Your task to perform on an android device: change your default location settings in chrome Image 0: 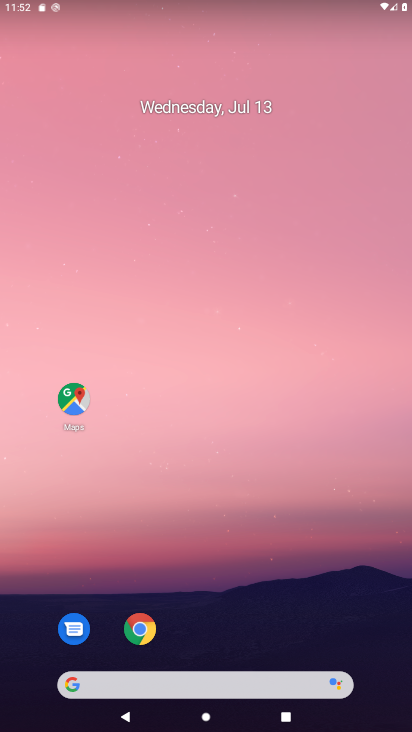
Step 0: click (137, 620)
Your task to perform on an android device: change your default location settings in chrome Image 1: 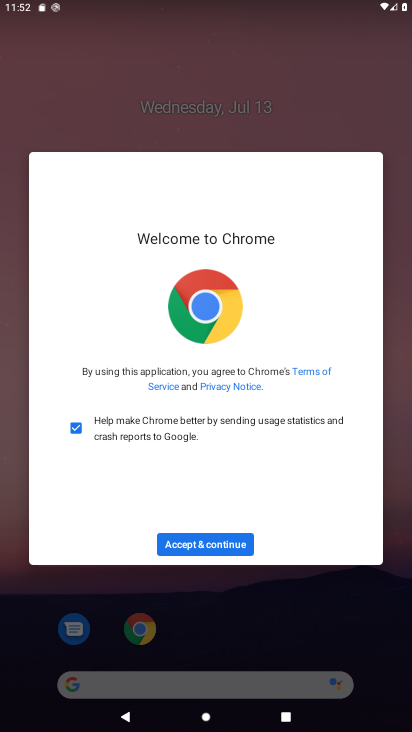
Step 1: click (227, 537)
Your task to perform on an android device: change your default location settings in chrome Image 2: 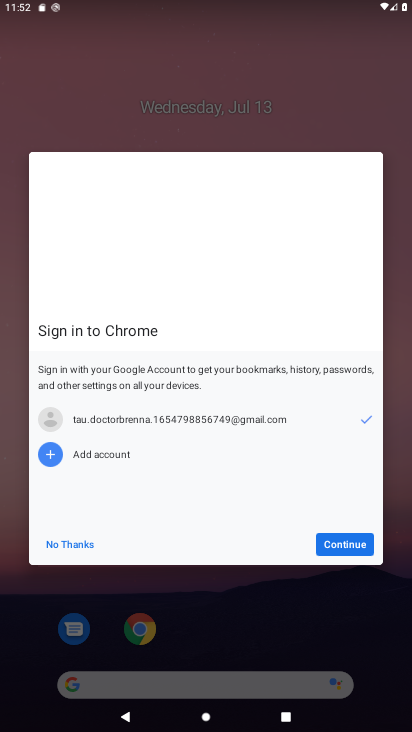
Step 2: click (326, 537)
Your task to perform on an android device: change your default location settings in chrome Image 3: 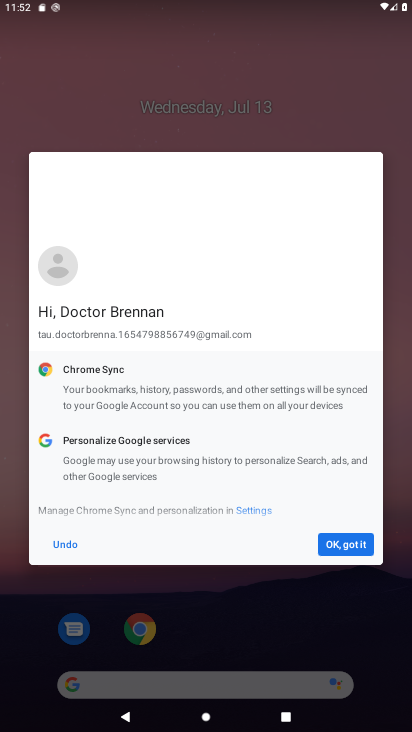
Step 3: click (326, 537)
Your task to perform on an android device: change your default location settings in chrome Image 4: 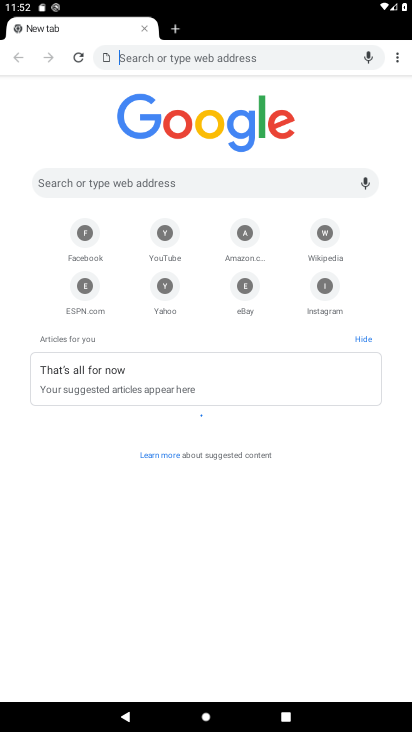
Step 4: task complete